Your task to perform on an android device: turn off priority inbox in the gmail app Image 0: 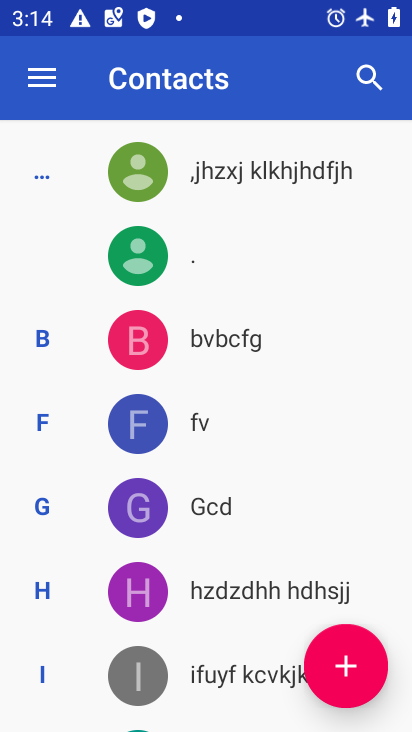
Step 0: press home button
Your task to perform on an android device: turn off priority inbox in the gmail app Image 1: 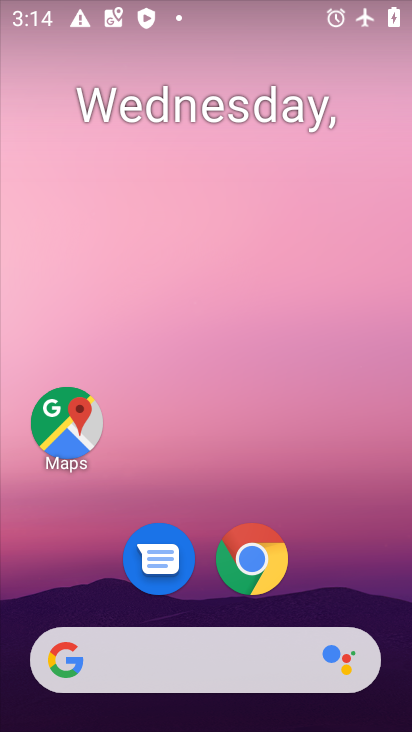
Step 1: drag from (210, 593) to (211, 133)
Your task to perform on an android device: turn off priority inbox in the gmail app Image 2: 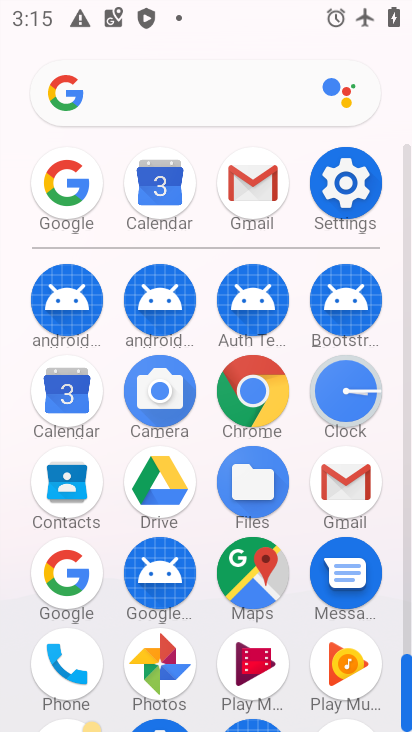
Step 2: click (250, 186)
Your task to perform on an android device: turn off priority inbox in the gmail app Image 3: 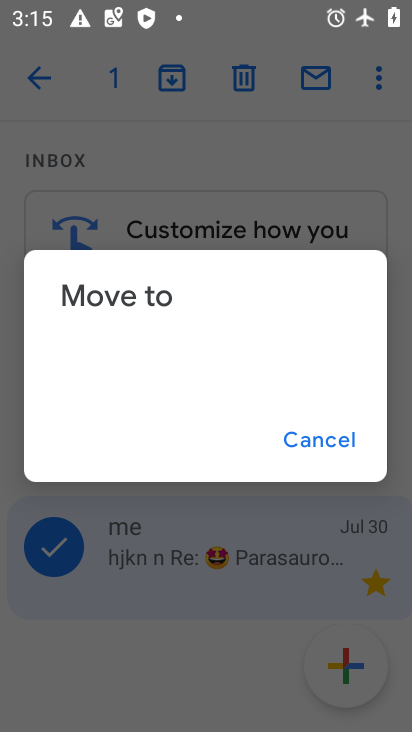
Step 3: click (322, 442)
Your task to perform on an android device: turn off priority inbox in the gmail app Image 4: 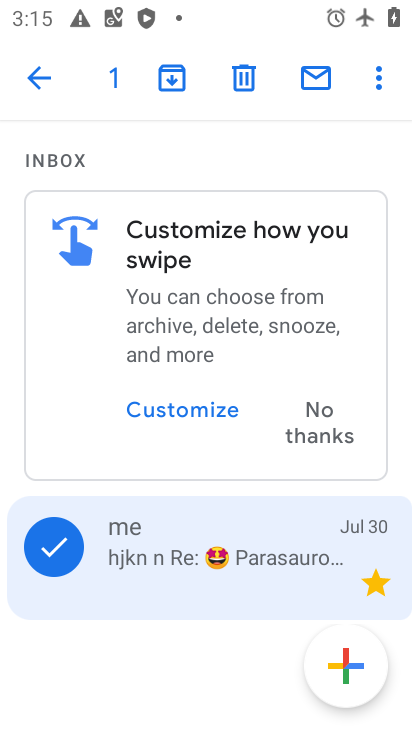
Step 4: click (38, 77)
Your task to perform on an android device: turn off priority inbox in the gmail app Image 5: 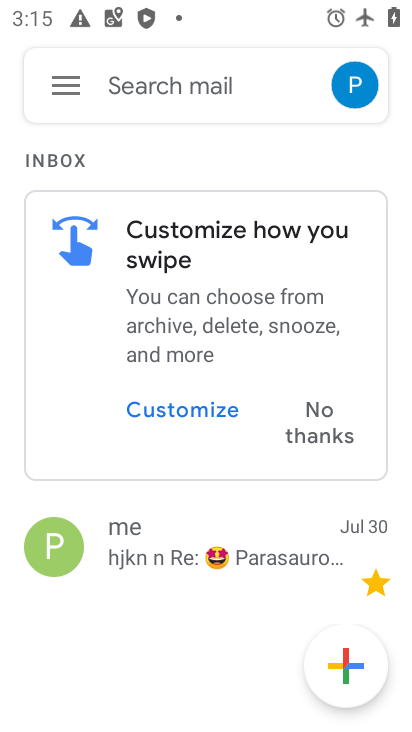
Step 5: click (66, 70)
Your task to perform on an android device: turn off priority inbox in the gmail app Image 6: 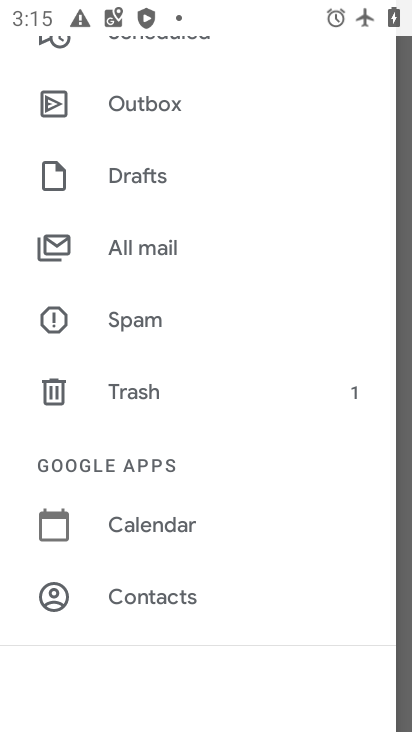
Step 6: drag from (146, 556) to (141, 282)
Your task to perform on an android device: turn off priority inbox in the gmail app Image 7: 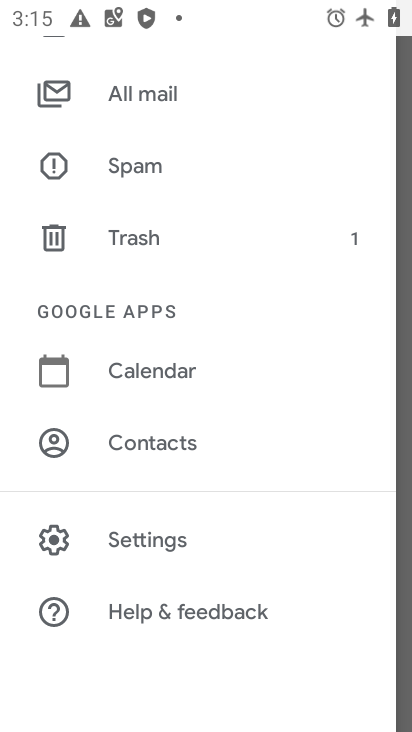
Step 7: click (145, 532)
Your task to perform on an android device: turn off priority inbox in the gmail app Image 8: 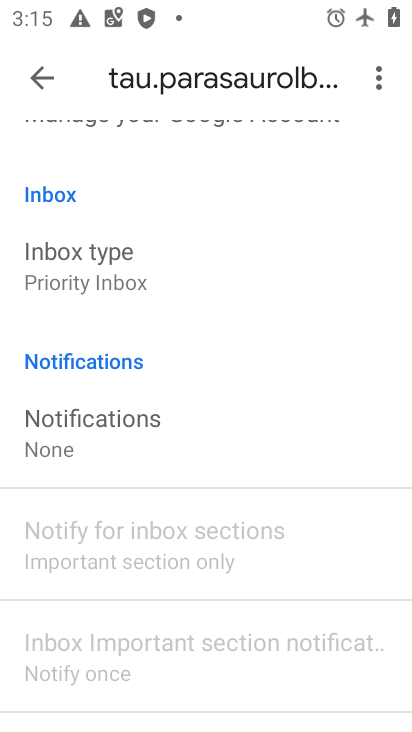
Step 8: drag from (129, 211) to (109, 323)
Your task to perform on an android device: turn off priority inbox in the gmail app Image 9: 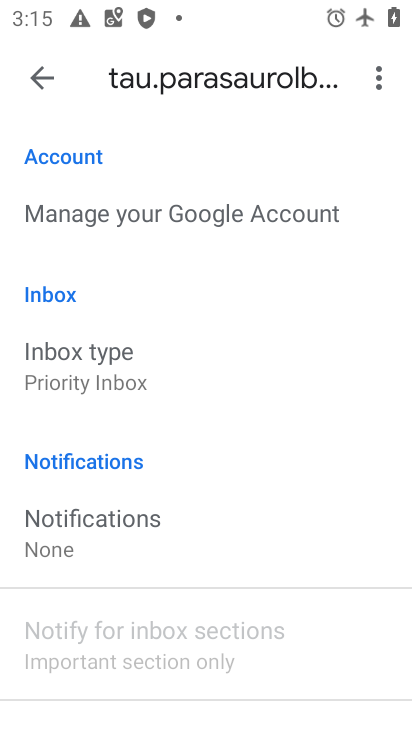
Step 9: click (104, 380)
Your task to perform on an android device: turn off priority inbox in the gmail app Image 10: 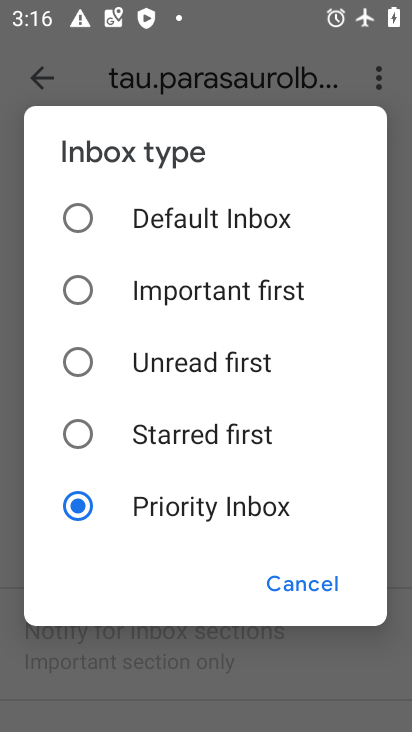
Step 10: click (76, 215)
Your task to perform on an android device: turn off priority inbox in the gmail app Image 11: 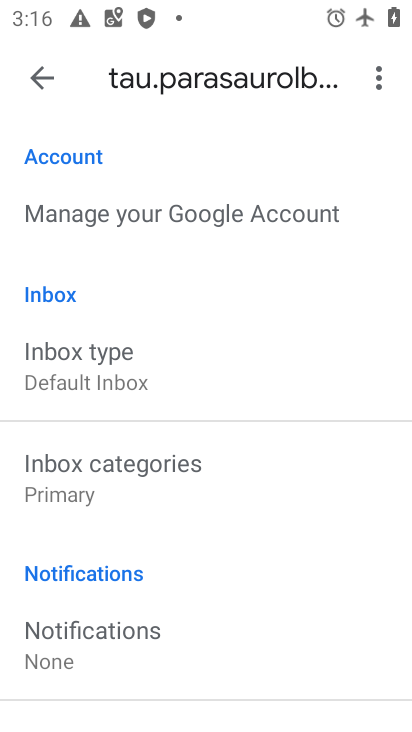
Step 11: task complete